Your task to perform on an android device: Open Chrome and go to settings Image 0: 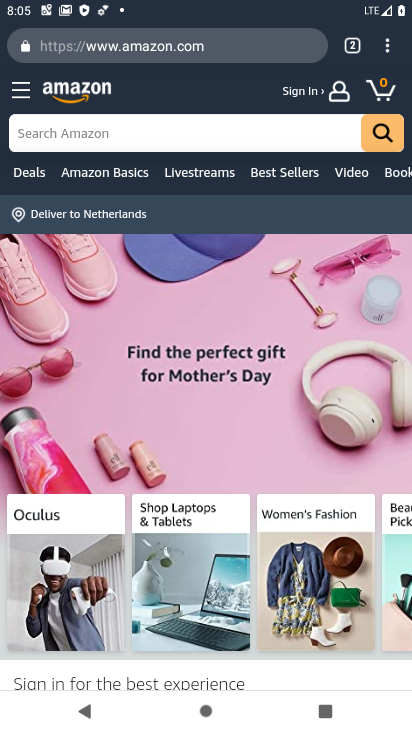
Step 0: press home button
Your task to perform on an android device: Open Chrome and go to settings Image 1: 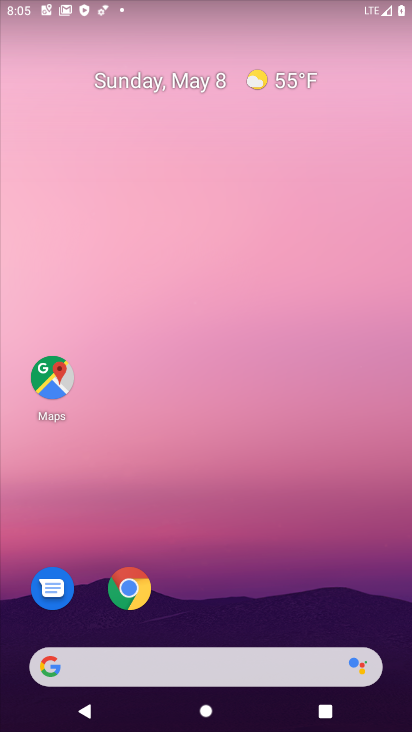
Step 1: drag from (346, 610) to (252, 43)
Your task to perform on an android device: Open Chrome and go to settings Image 2: 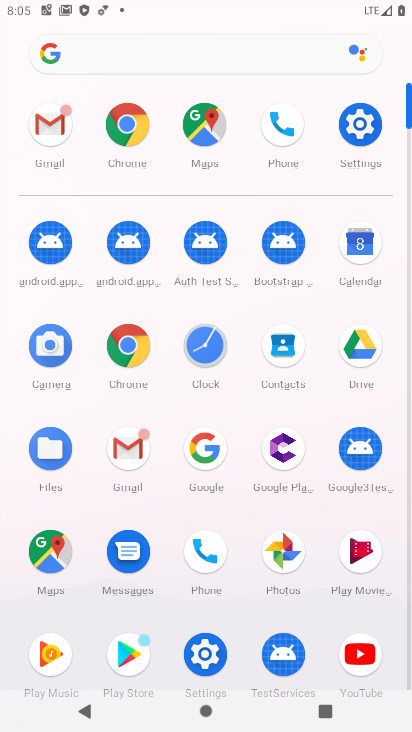
Step 2: click (213, 641)
Your task to perform on an android device: Open Chrome and go to settings Image 3: 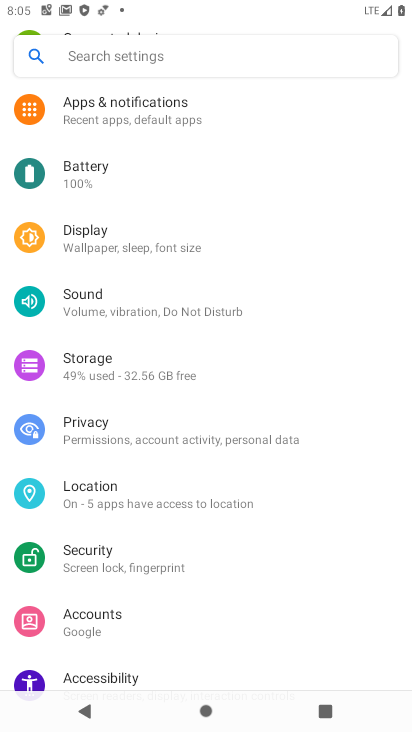
Step 3: press back button
Your task to perform on an android device: Open Chrome and go to settings Image 4: 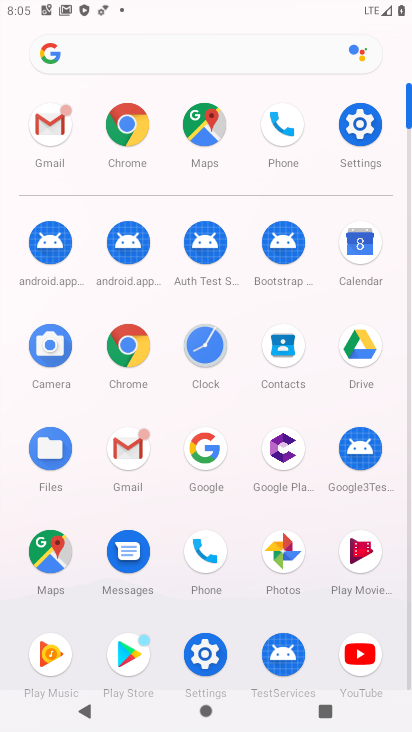
Step 4: click (115, 342)
Your task to perform on an android device: Open Chrome and go to settings Image 5: 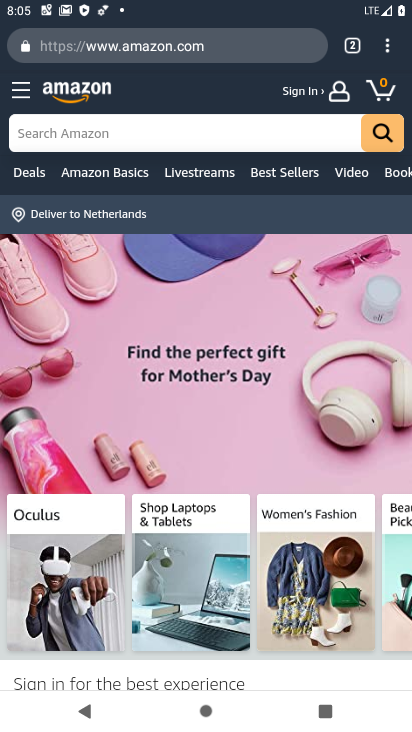
Step 5: press back button
Your task to perform on an android device: Open Chrome and go to settings Image 6: 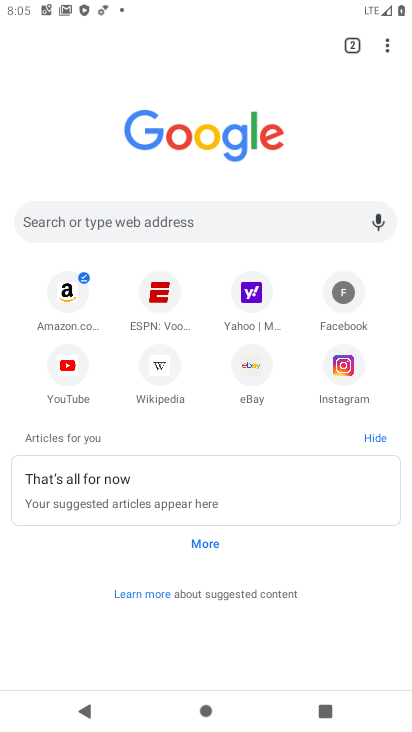
Step 6: click (384, 45)
Your task to perform on an android device: Open Chrome and go to settings Image 7: 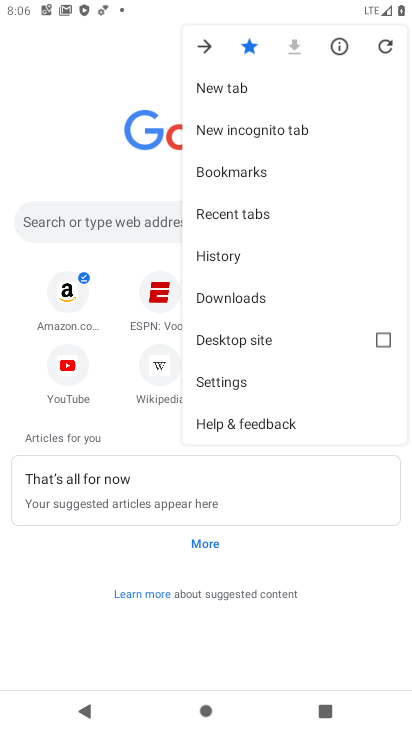
Step 7: click (242, 381)
Your task to perform on an android device: Open Chrome and go to settings Image 8: 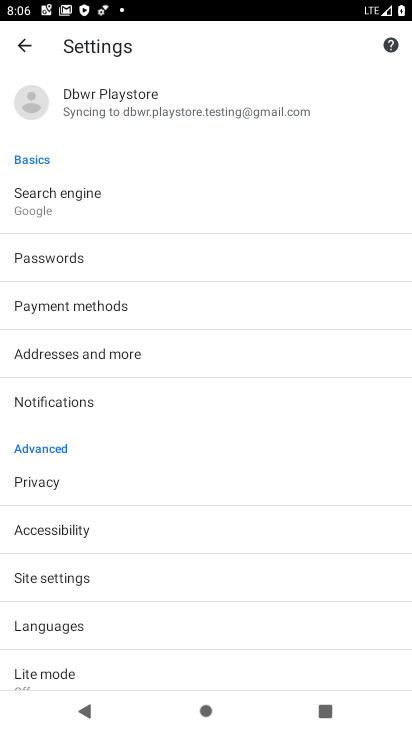
Step 8: task complete